Your task to perform on an android device: open a bookmark in the chrome app Image 0: 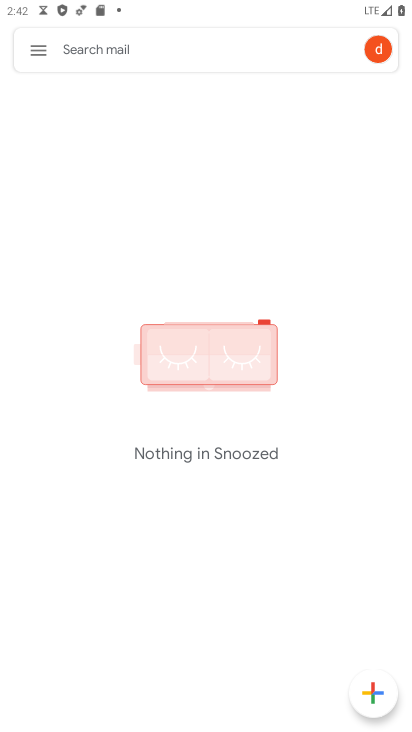
Step 0: press home button
Your task to perform on an android device: open a bookmark in the chrome app Image 1: 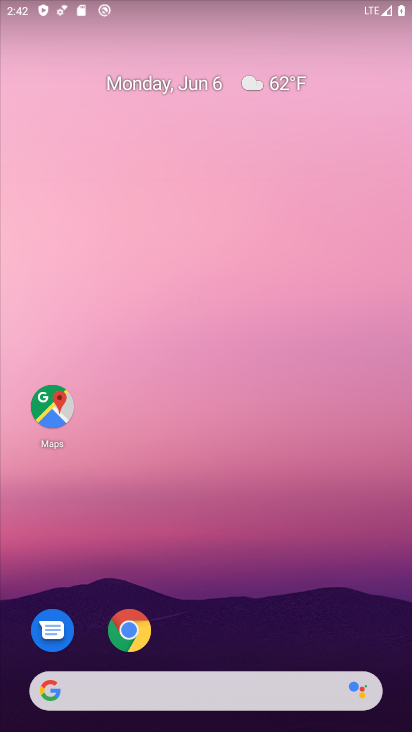
Step 1: drag from (258, 644) to (411, 76)
Your task to perform on an android device: open a bookmark in the chrome app Image 2: 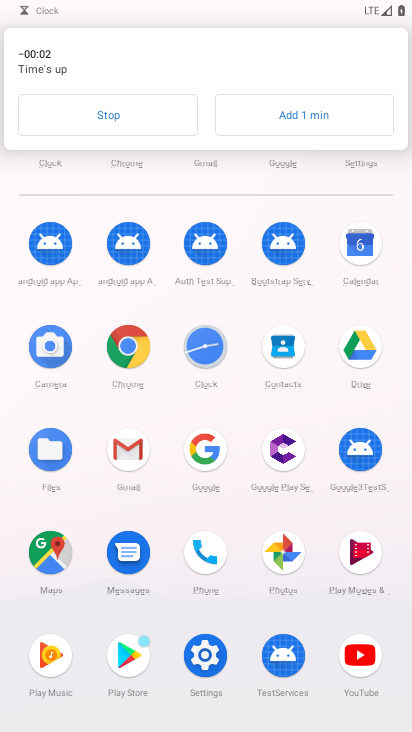
Step 2: click (58, 128)
Your task to perform on an android device: open a bookmark in the chrome app Image 3: 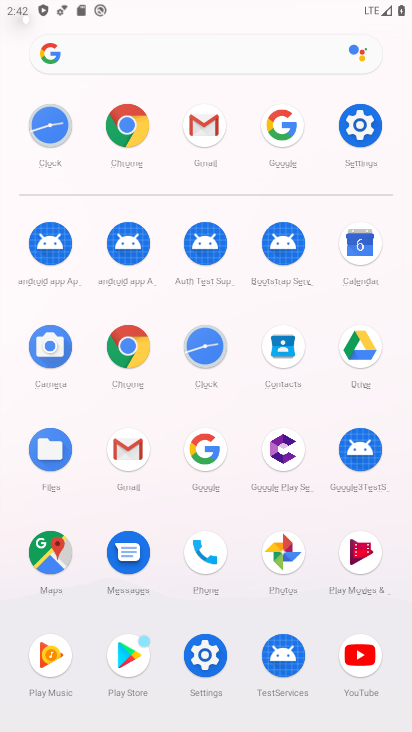
Step 3: drag from (292, 619) to (282, 568)
Your task to perform on an android device: open a bookmark in the chrome app Image 4: 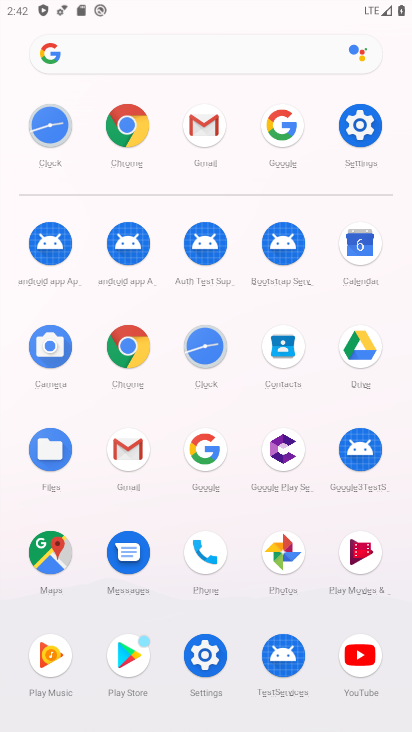
Step 4: click (147, 365)
Your task to perform on an android device: open a bookmark in the chrome app Image 5: 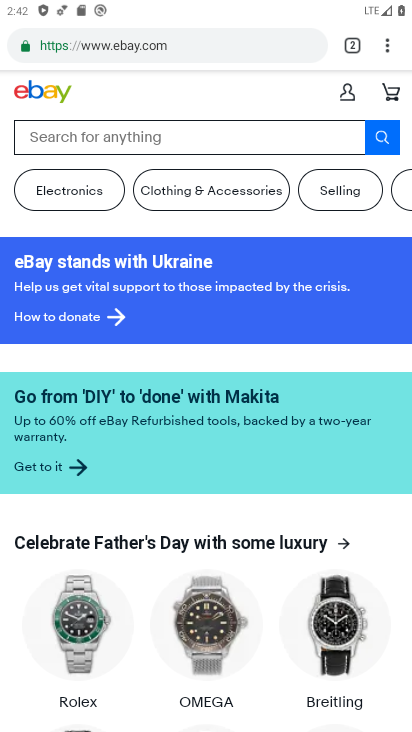
Step 5: drag from (397, 21) to (386, 76)
Your task to perform on an android device: open a bookmark in the chrome app Image 6: 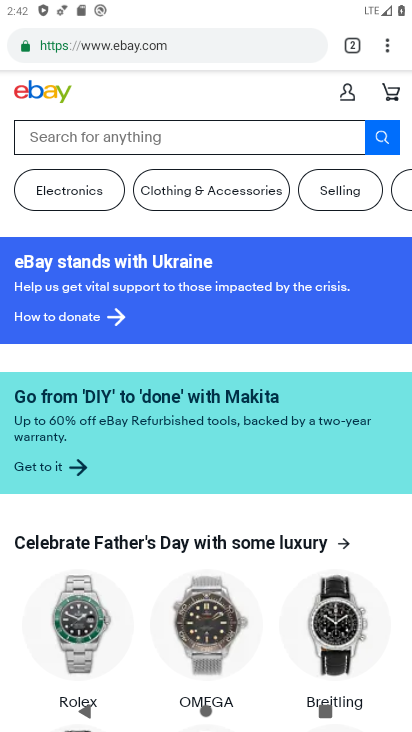
Step 6: click (386, 55)
Your task to perform on an android device: open a bookmark in the chrome app Image 7: 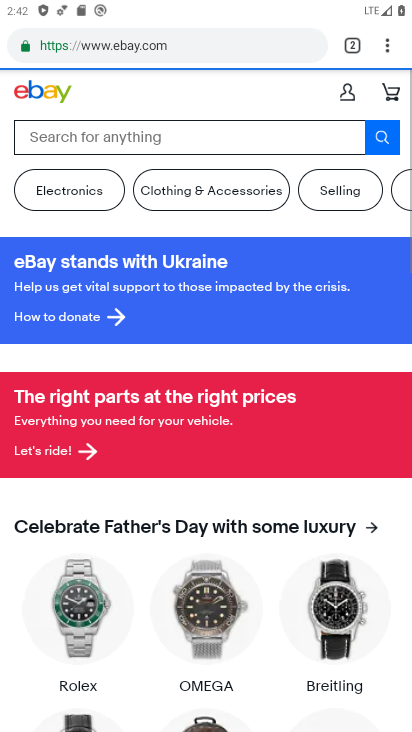
Step 7: drag from (386, 55) to (281, 568)
Your task to perform on an android device: open a bookmark in the chrome app Image 8: 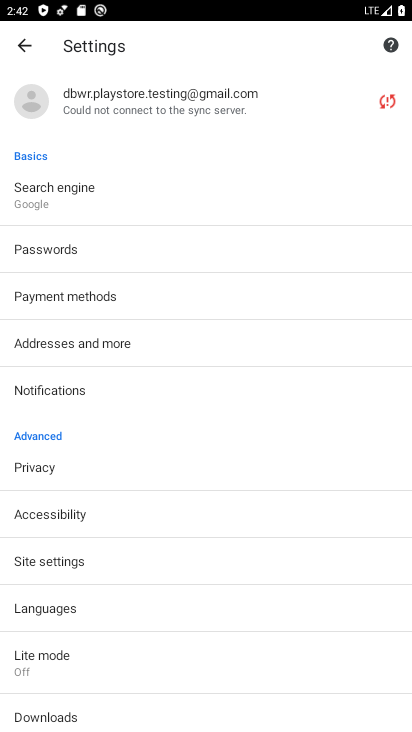
Step 8: click (20, 46)
Your task to perform on an android device: open a bookmark in the chrome app Image 9: 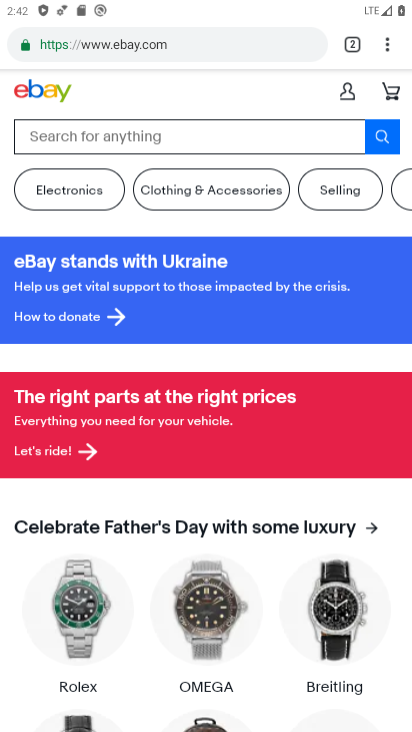
Step 9: task complete